Your task to perform on an android device: Go to network settings Image 0: 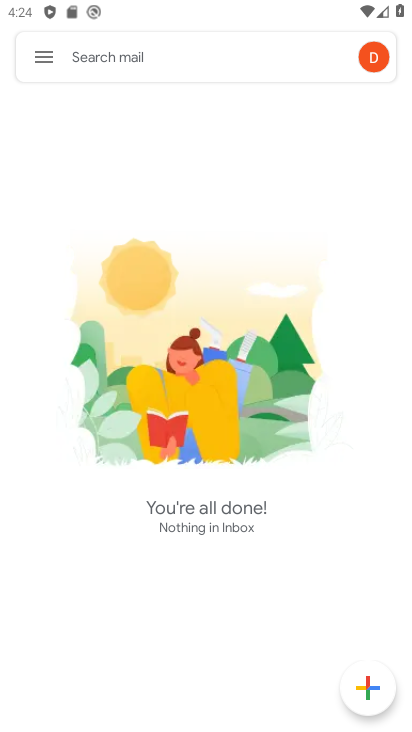
Step 0: press home button
Your task to perform on an android device: Go to network settings Image 1: 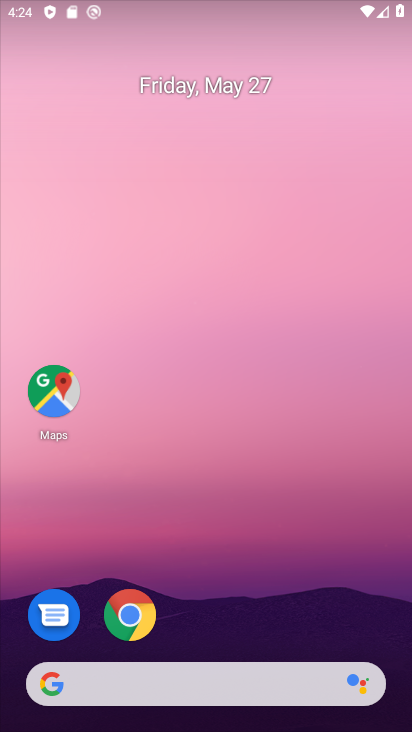
Step 1: drag from (293, 559) to (203, 76)
Your task to perform on an android device: Go to network settings Image 2: 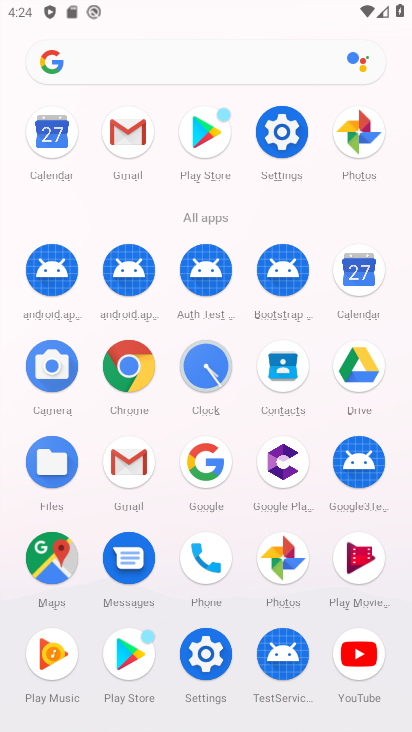
Step 2: click (287, 149)
Your task to perform on an android device: Go to network settings Image 3: 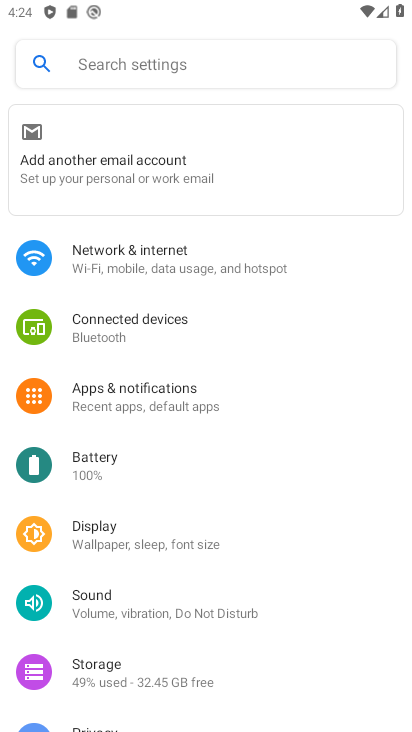
Step 3: click (194, 252)
Your task to perform on an android device: Go to network settings Image 4: 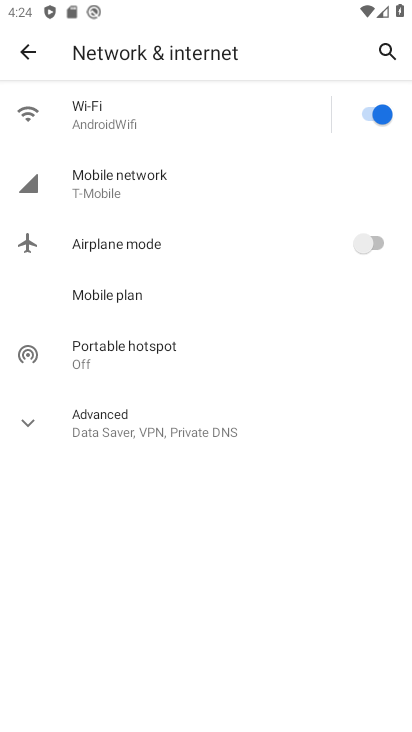
Step 4: task complete